Your task to perform on an android device: Open settings on Google Maps Image 0: 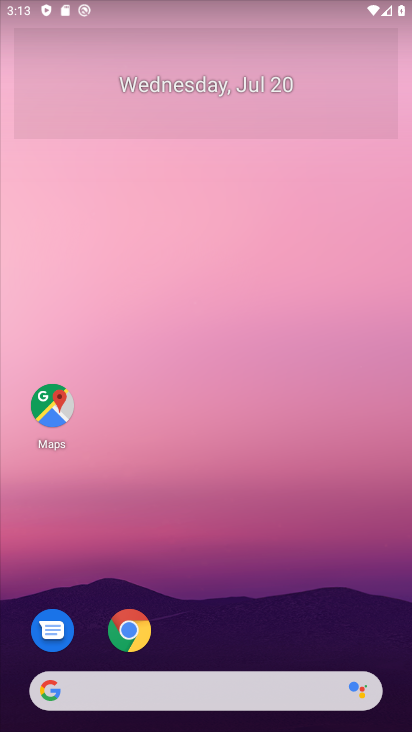
Step 0: press home button
Your task to perform on an android device: Open settings on Google Maps Image 1: 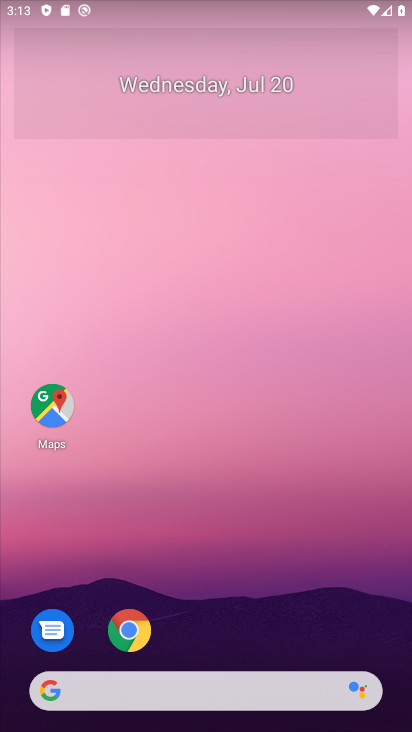
Step 1: drag from (250, 605) to (297, 0)
Your task to perform on an android device: Open settings on Google Maps Image 2: 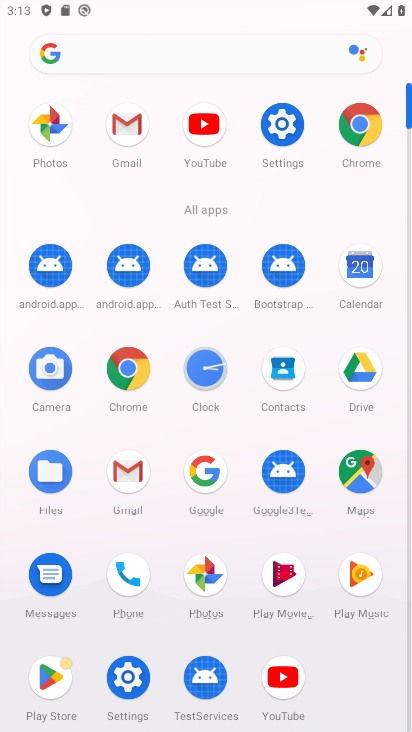
Step 2: click (364, 478)
Your task to perform on an android device: Open settings on Google Maps Image 3: 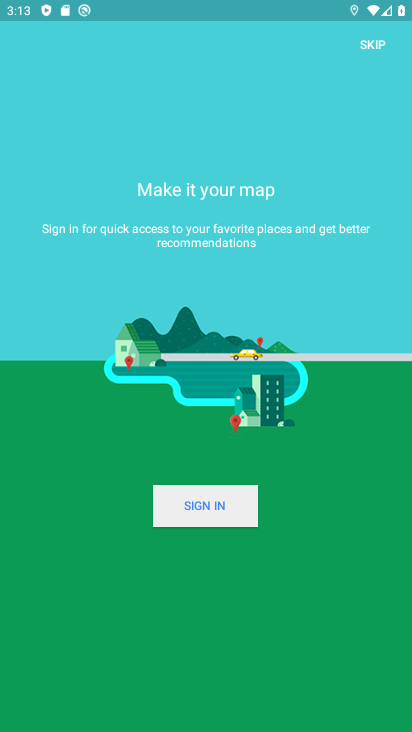
Step 3: click (365, 43)
Your task to perform on an android device: Open settings on Google Maps Image 4: 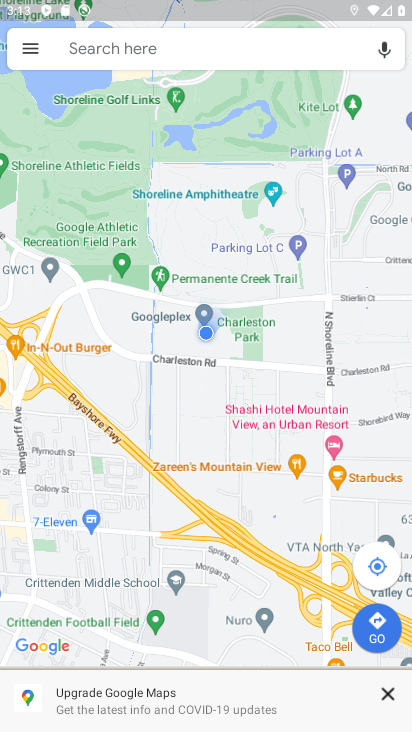
Step 4: click (19, 50)
Your task to perform on an android device: Open settings on Google Maps Image 5: 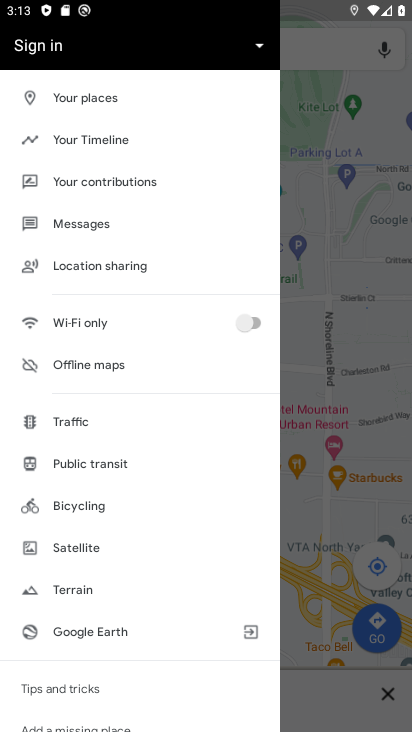
Step 5: drag from (173, 684) to (225, 187)
Your task to perform on an android device: Open settings on Google Maps Image 6: 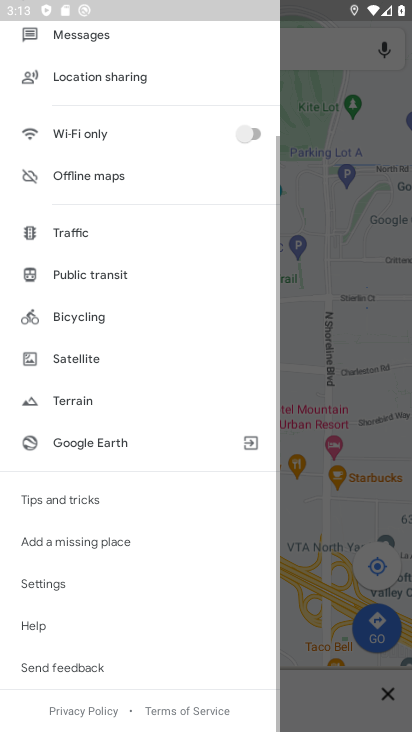
Step 6: click (47, 582)
Your task to perform on an android device: Open settings on Google Maps Image 7: 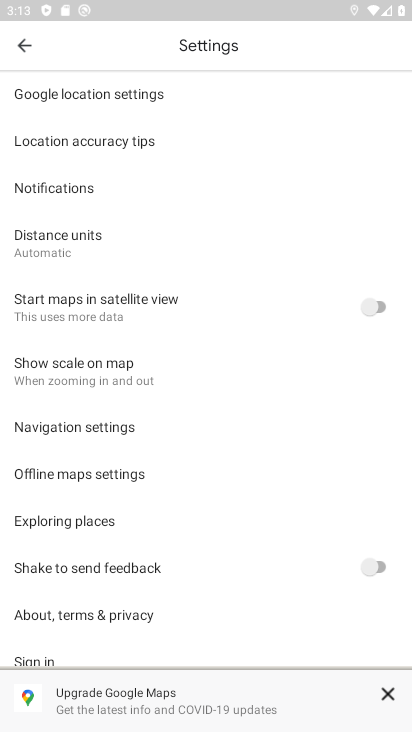
Step 7: task complete